Your task to perform on an android device: See recent photos Image 0: 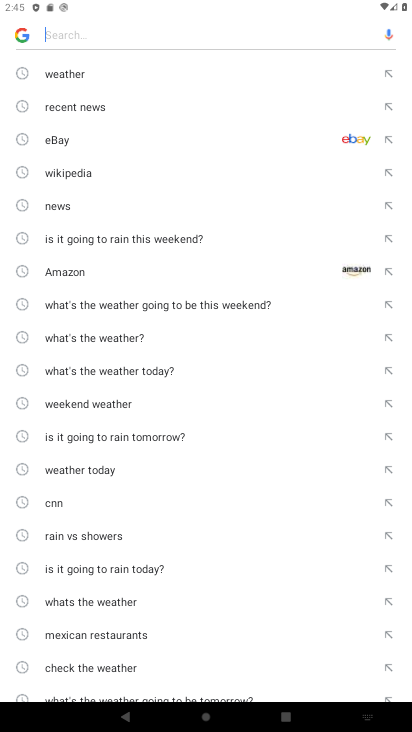
Step 0: press home button
Your task to perform on an android device: See recent photos Image 1: 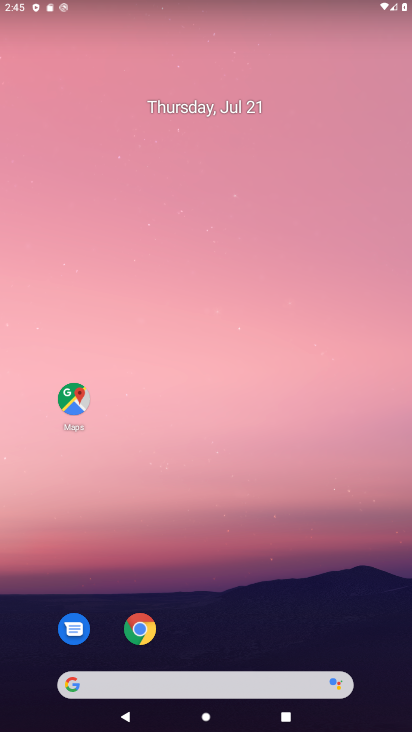
Step 1: drag from (377, 694) to (261, 56)
Your task to perform on an android device: See recent photos Image 2: 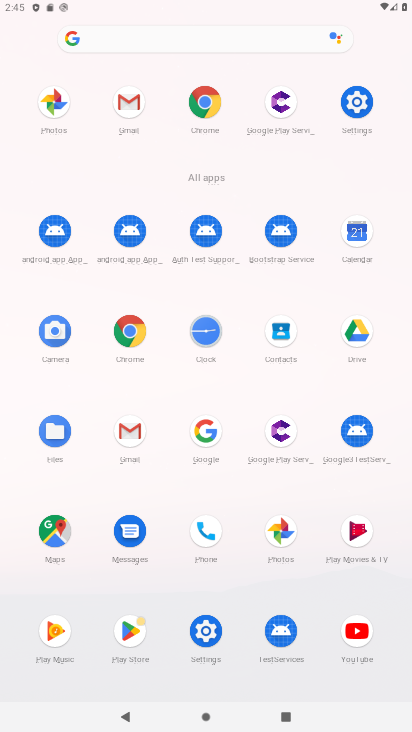
Step 2: click (277, 526)
Your task to perform on an android device: See recent photos Image 3: 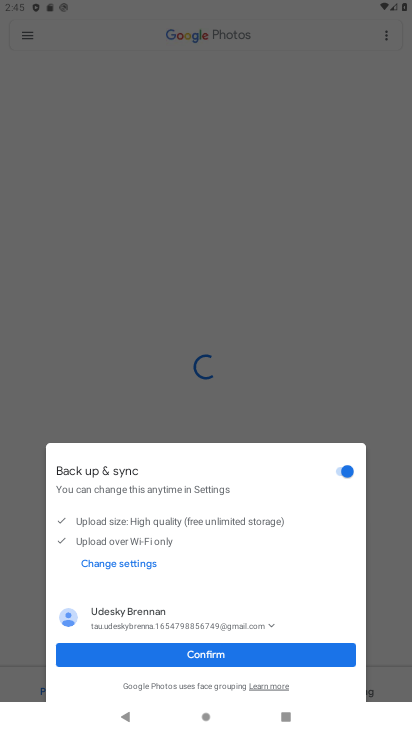
Step 3: click (179, 656)
Your task to perform on an android device: See recent photos Image 4: 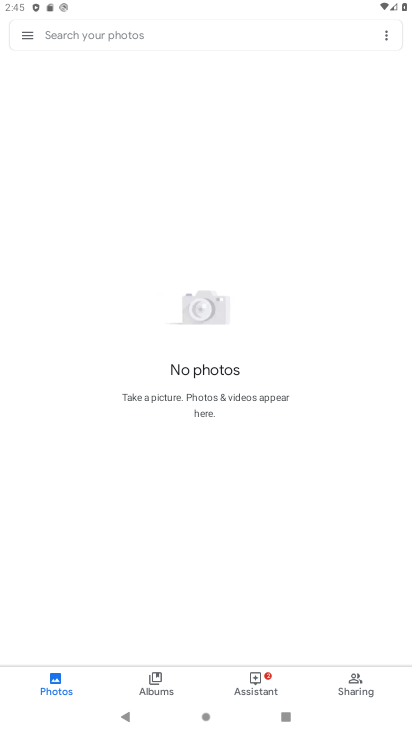
Step 4: task complete